Your task to perform on an android device: What is the recent news? Image 0: 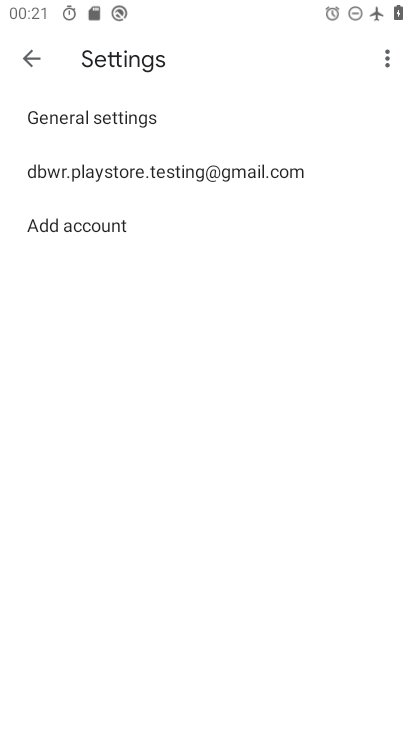
Step 0: press home button
Your task to perform on an android device: What is the recent news? Image 1: 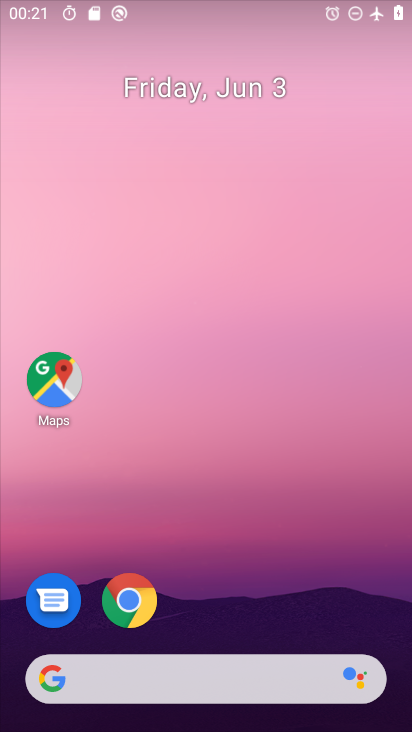
Step 1: drag from (230, 577) to (266, 37)
Your task to perform on an android device: What is the recent news? Image 2: 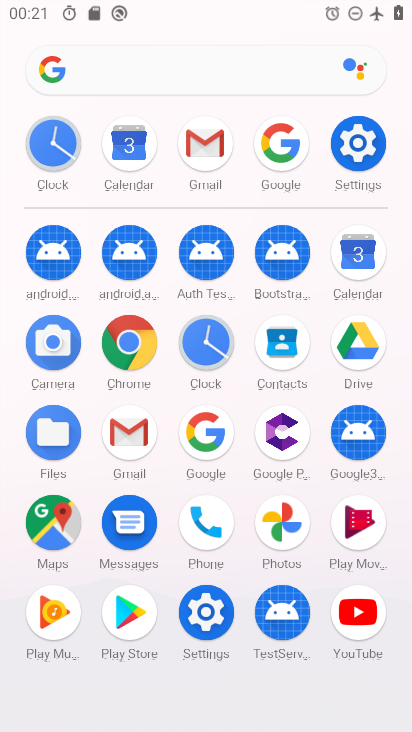
Step 2: click (215, 424)
Your task to perform on an android device: What is the recent news? Image 3: 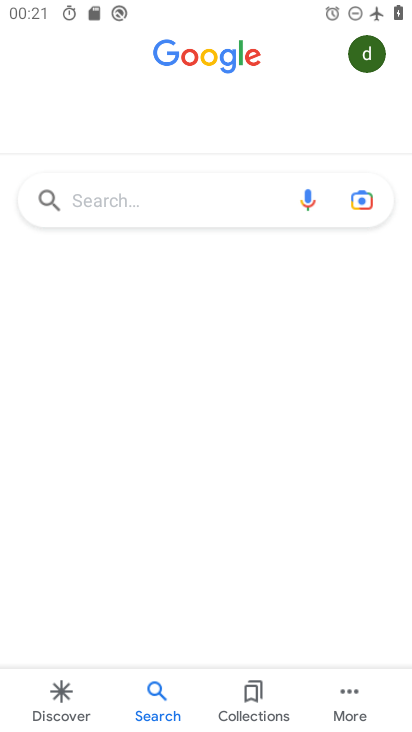
Step 3: click (181, 211)
Your task to perform on an android device: What is the recent news? Image 4: 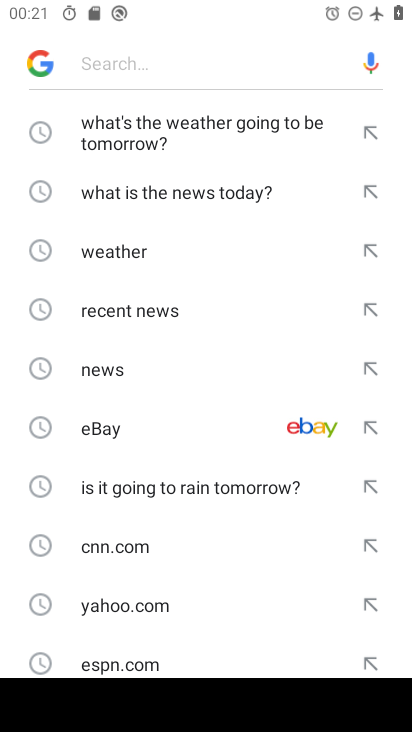
Step 4: click (158, 316)
Your task to perform on an android device: What is the recent news? Image 5: 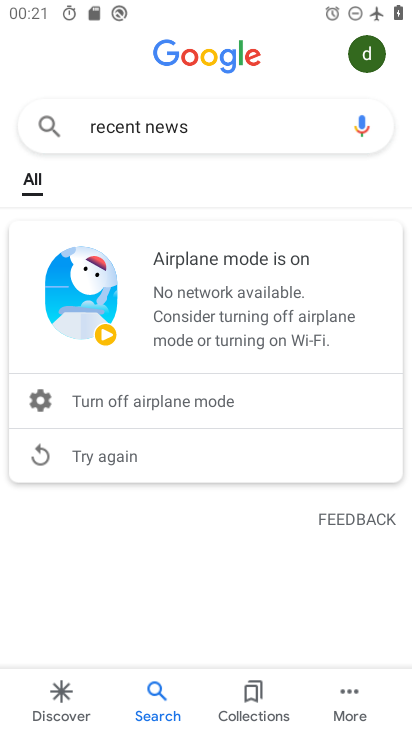
Step 5: task complete